Your task to perform on an android device: Go to Yahoo.com Image 0: 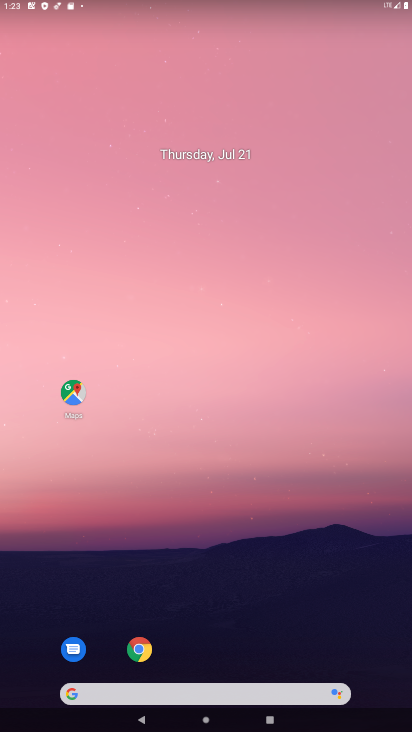
Step 0: click (136, 645)
Your task to perform on an android device: Go to Yahoo.com Image 1: 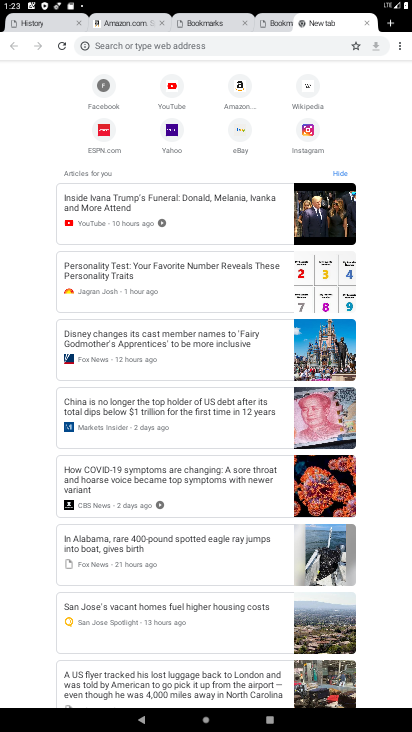
Step 1: click (173, 128)
Your task to perform on an android device: Go to Yahoo.com Image 2: 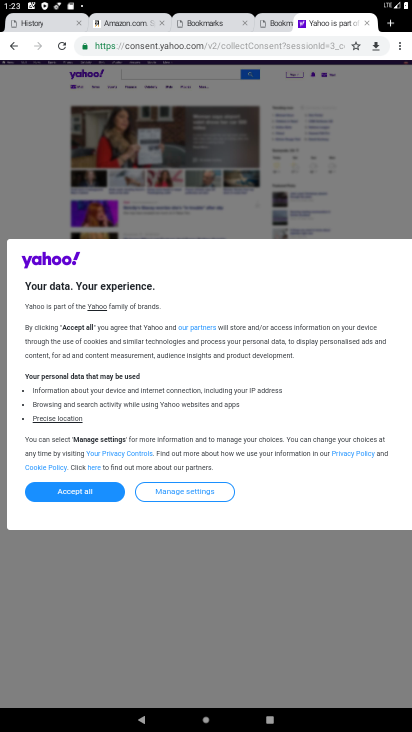
Step 2: click (72, 489)
Your task to perform on an android device: Go to Yahoo.com Image 3: 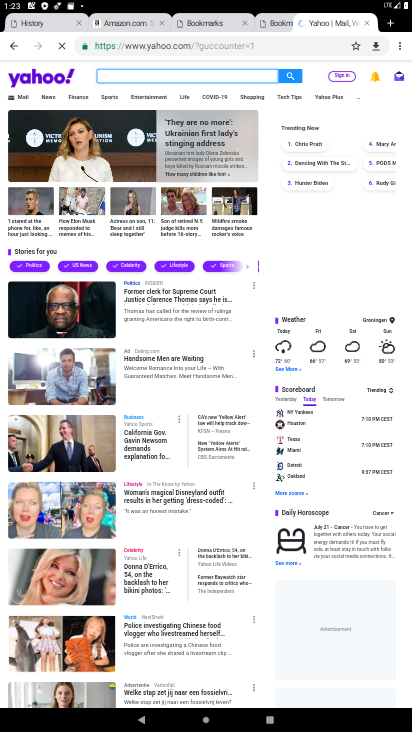
Step 3: task complete